Your task to perform on an android device: open sync settings in chrome Image 0: 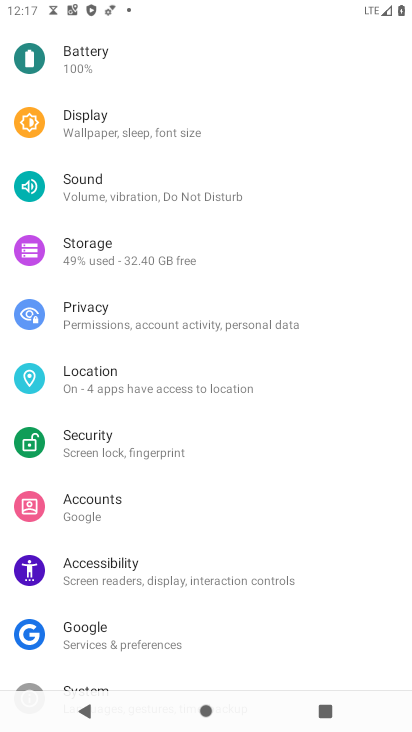
Step 0: press home button
Your task to perform on an android device: open sync settings in chrome Image 1: 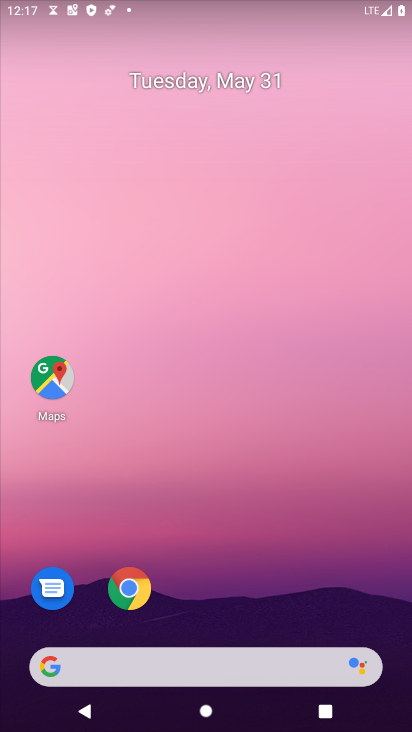
Step 1: click (131, 581)
Your task to perform on an android device: open sync settings in chrome Image 2: 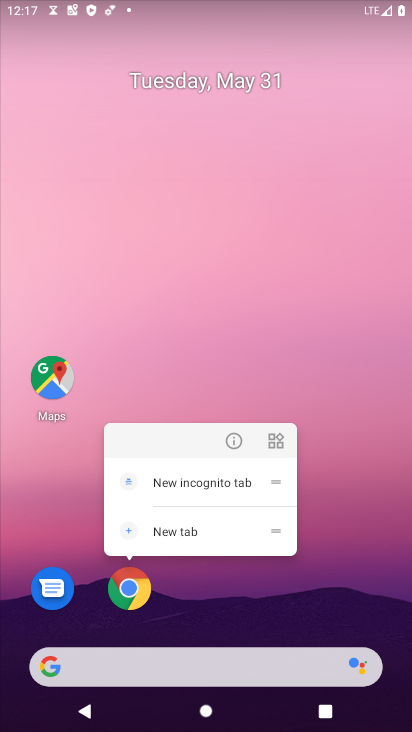
Step 2: click (351, 615)
Your task to perform on an android device: open sync settings in chrome Image 3: 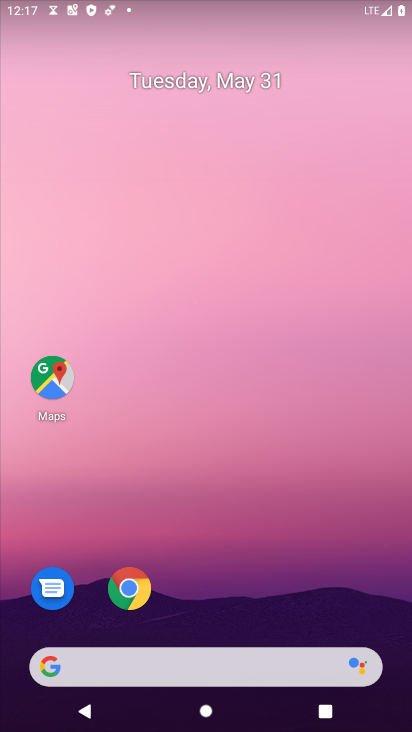
Step 3: drag from (203, 623) to (255, 72)
Your task to perform on an android device: open sync settings in chrome Image 4: 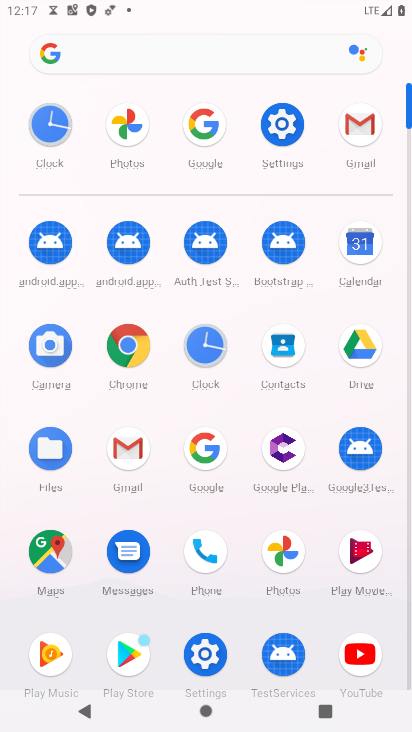
Step 4: click (127, 343)
Your task to perform on an android device: open sync settings in chrome Image 5: 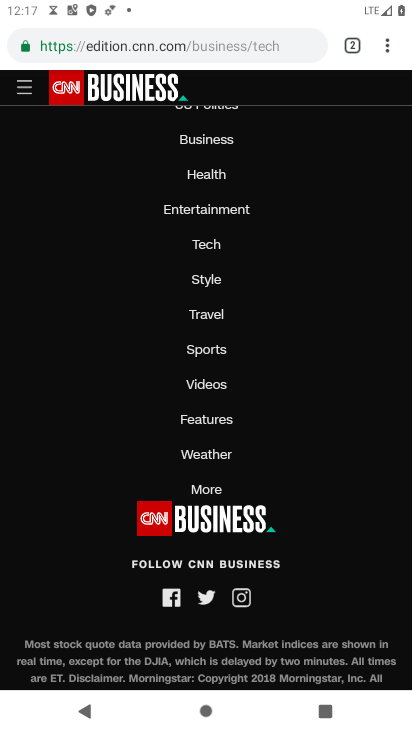
Step 5: click (391, 51)
Your task to perform on an android device: open sync settings in chrome Image 6: 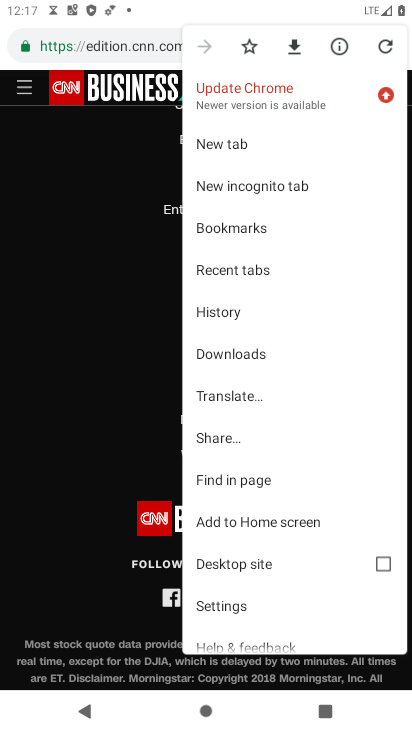
Step 6: click (256, 606)
Your task to perform on an android device: open sync settings in chrome Image 7: 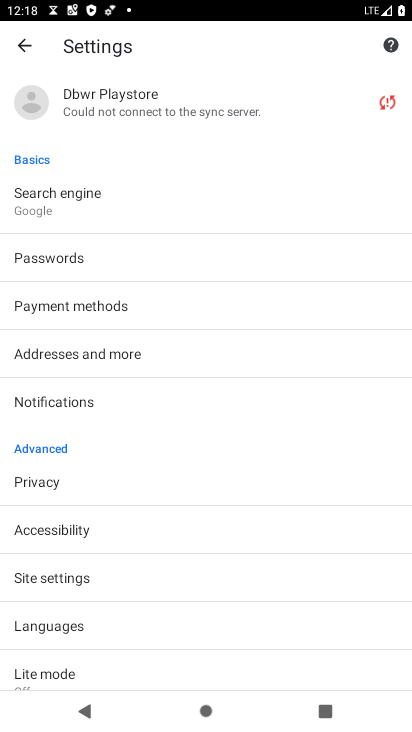
Step 7: click (141, 106)
Your task to perform on an android device: open sync settings in chrome Image 8: 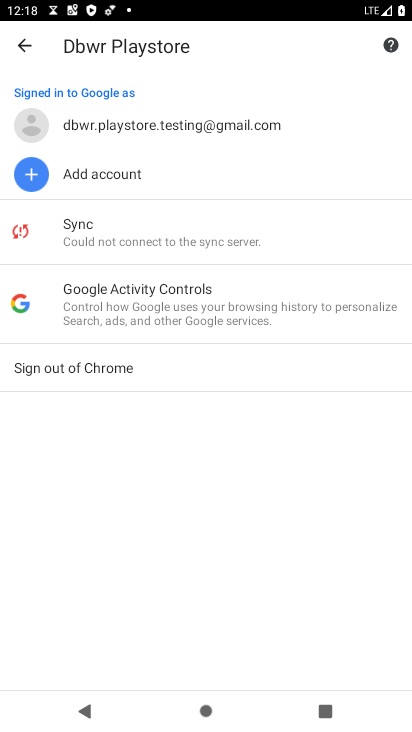
Step 8: click (113, 227)
Your task to perform on an android device: open sync settings in chrome Image 9: 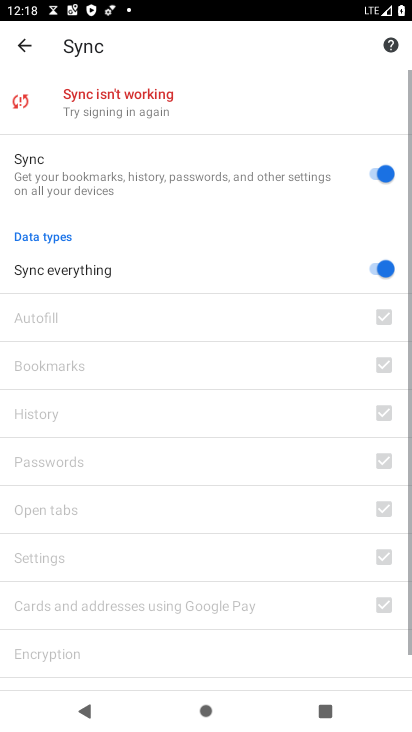
Step 9: task complete